Your task to perform on an android device: change alarm snooze length Image 0: 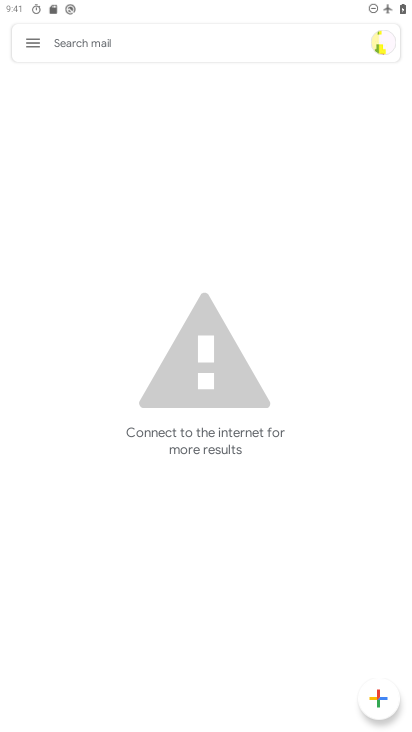
Step 0: press home button
Your task to perform on an android device: change alarm snooze length Image 1: 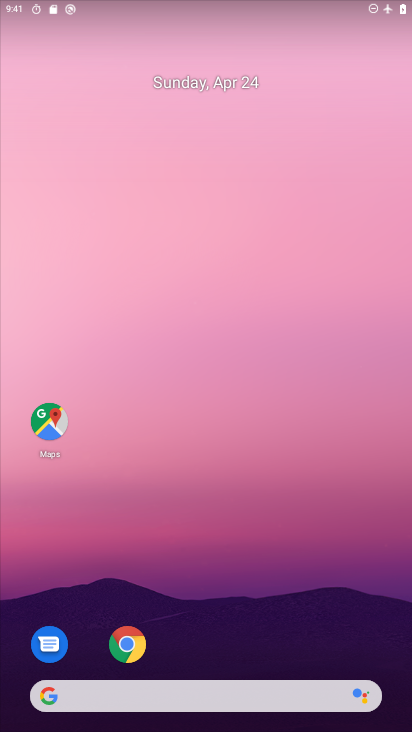
Step 1: drag from (210, 674) to (240, 22)
Your task to perform on an android device: change alarm snooze length Image 2: 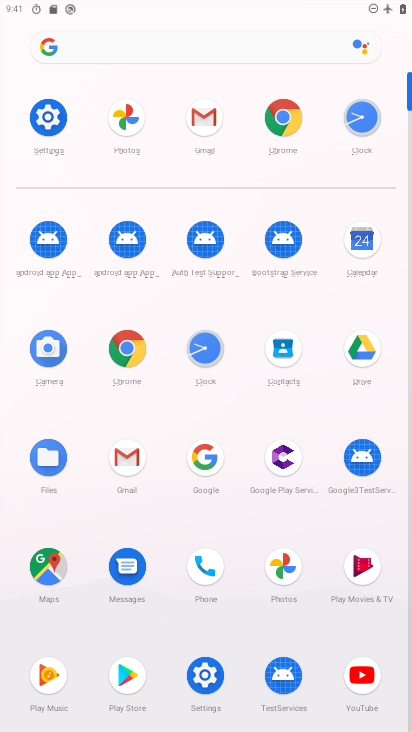
Step 2: click (213, 355)
Your task to perform on an android device: change alarm snooze length Image 3: 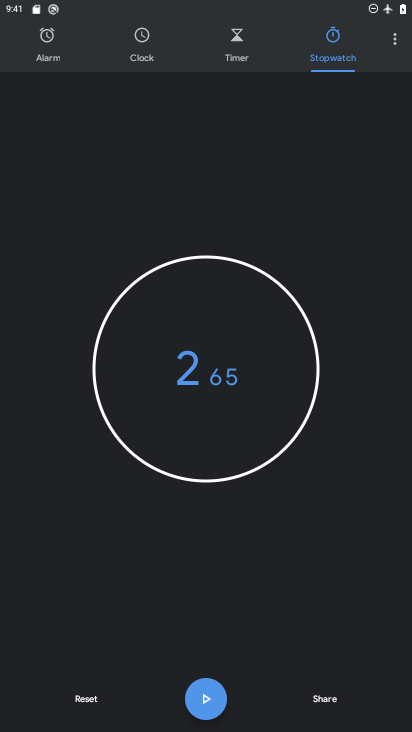
Step 3: click (388, 51)
Your task to perform on an android device: change alarm snooze length Image 4: 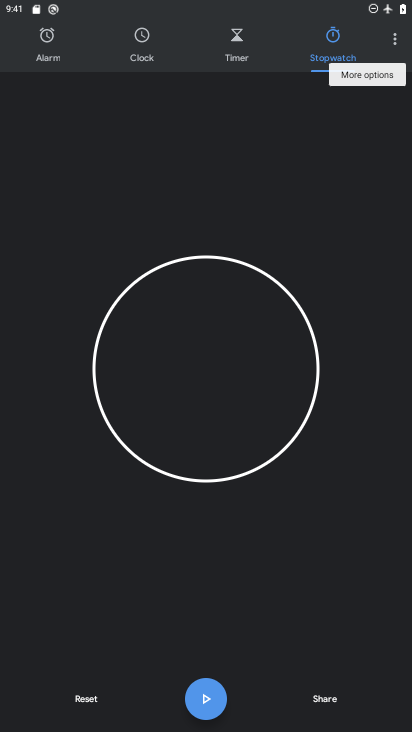
Step 4: click (367, 71)
Your task to perform on an android device: change alarm snooze length Image 5: 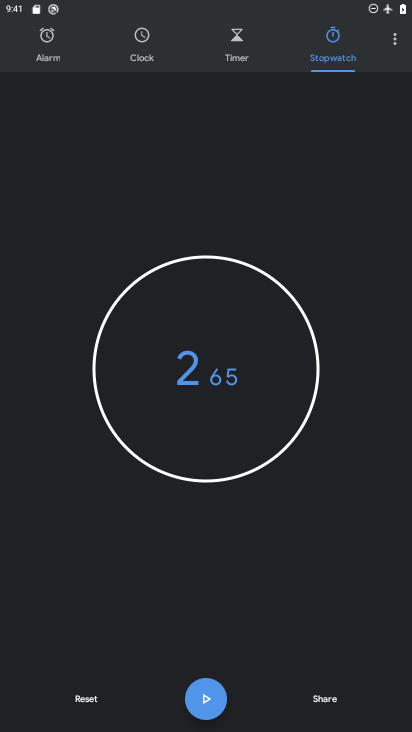
Step 5: click (395, 27)
Your task to perform on an android device: change alarm snooze length Image 6: 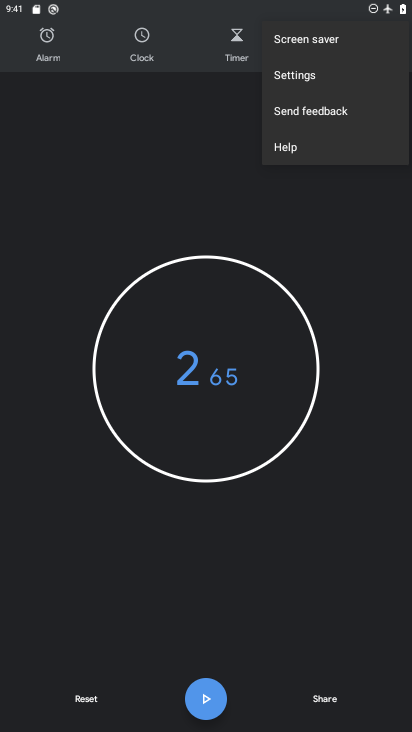
Step 6: click (273, 73)
Your task to perform on an android device: change alarm snooze length Image 7: 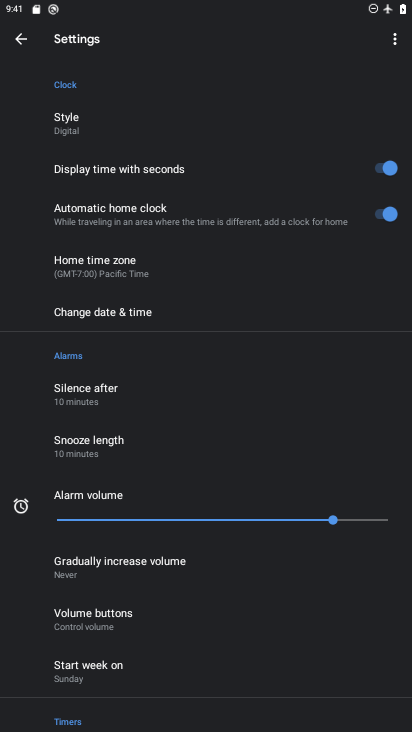
Step 7: click (121, 449)
Your task to perform on an android device: change alarm snooze length Image 8: 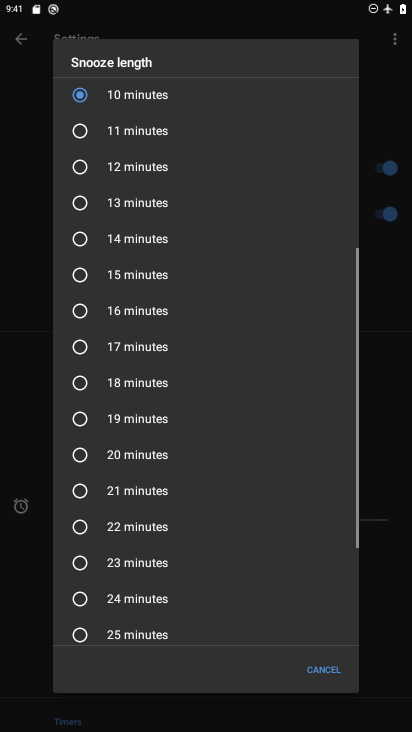
Step 8: click (90, 132)
Your task to perform on an android device: change alarm snooze length Image 9: 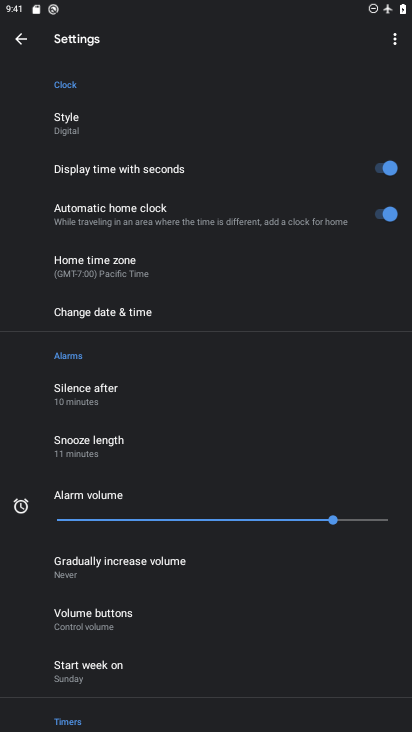
Step 9: task complete